Your task to perform on an android device: check storage Image 0: 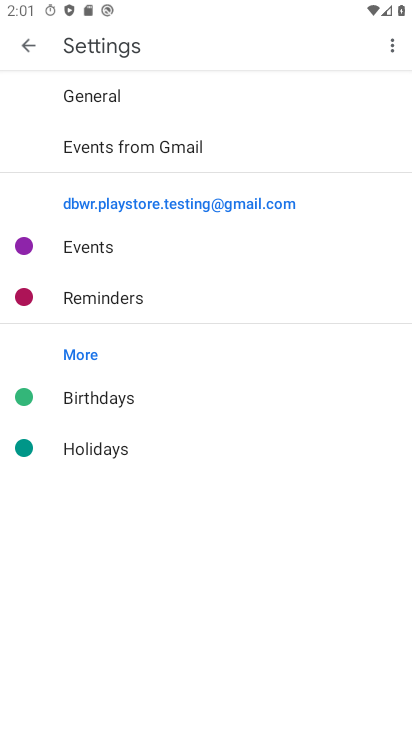
Step 0: press home button
Your task to perform on an android device: check storage Image 1: 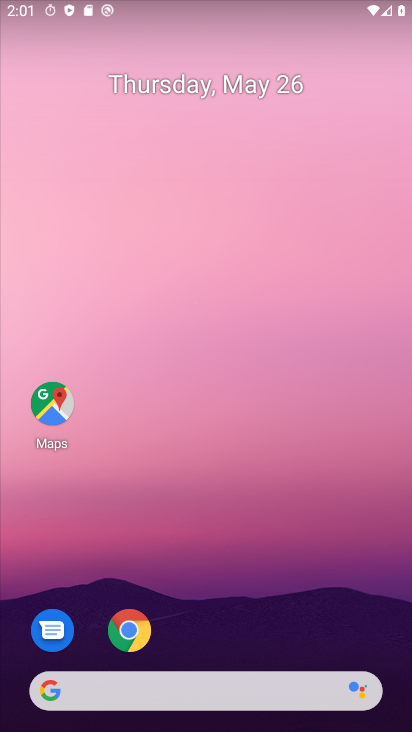
Step 1: drag from (260, 611) to (233, 225)
Your task to perform on an android device: check storage Image 2: 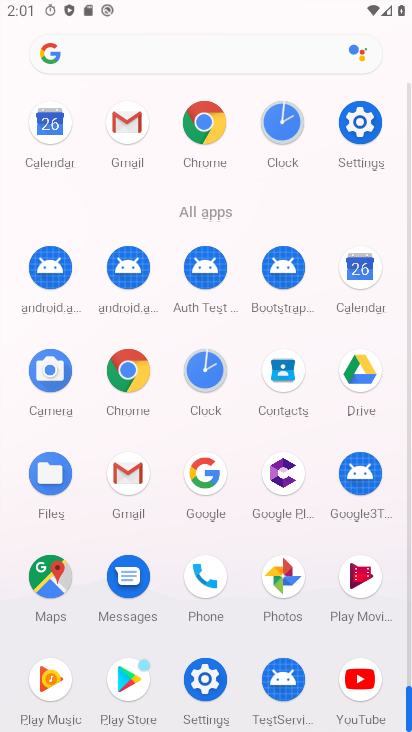
Step 2: click (363, 120)
Your task to perform on an android device: check storage Image 3: 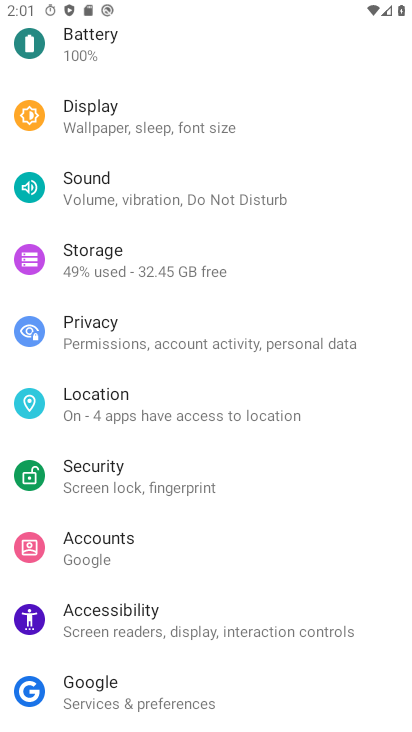
Step 3: click (122, 265)
Your task to perform on an android device: check storage Image 4: 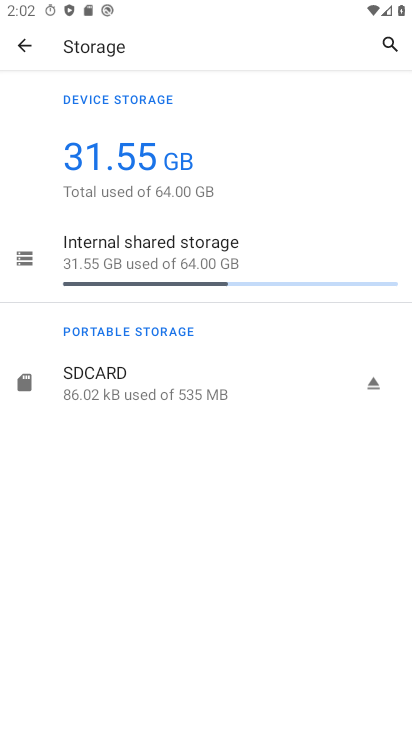
Step 4: task complete